Your task to perform on an android device: Go to internet settings Image 0: 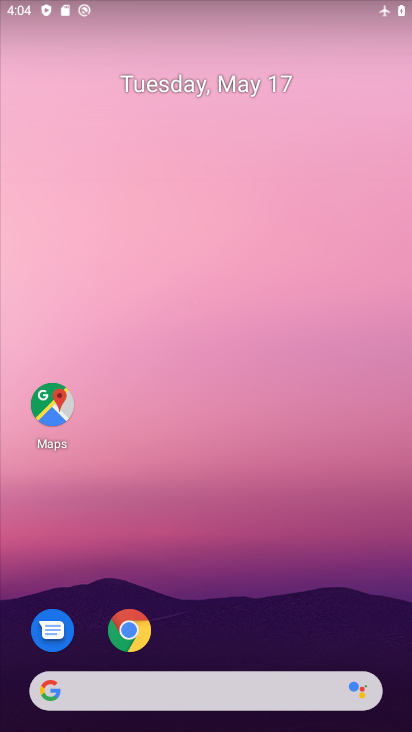
Step 0: drag from (218, 721) to (223, 260)
Your task to perform on an android device: Go to internet settings Image 1: 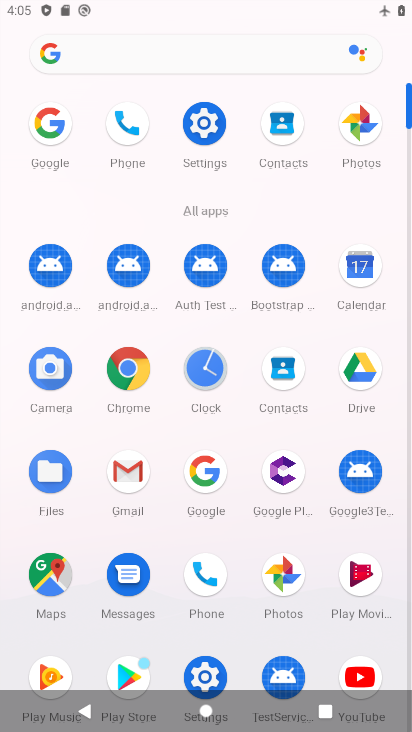
Step 1: click (206, 121)
Your task to perform on an android device: Go to internet settings Image 2: 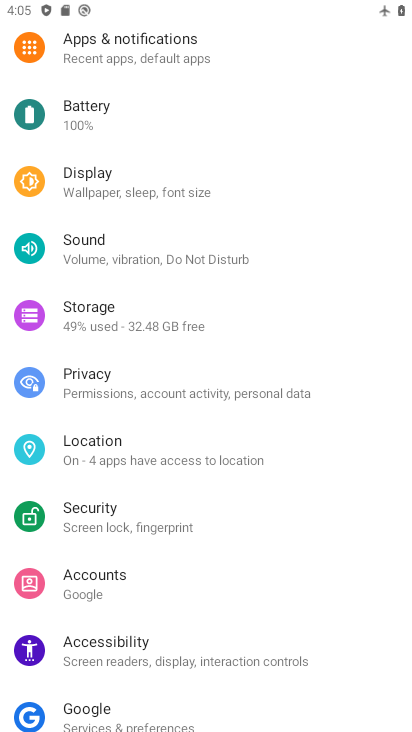
Step 2: drag from (147, 147) to (146, 386)
Your task to perform on an android device: Go to internet settings Image 3: 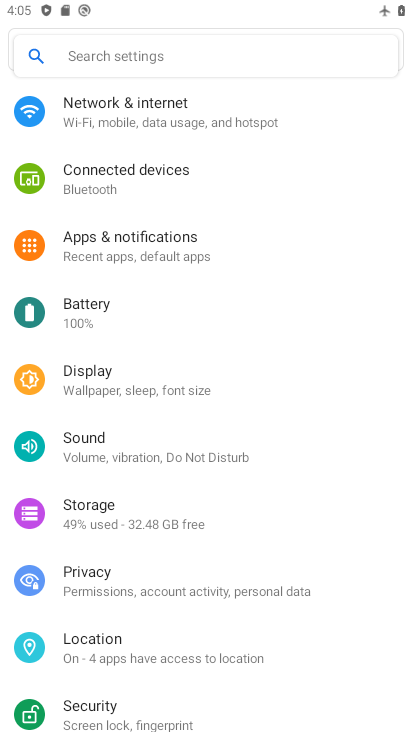
Step 3: click (115, 122)
Your task to perform on an android device: Go to internet settings Image 4: 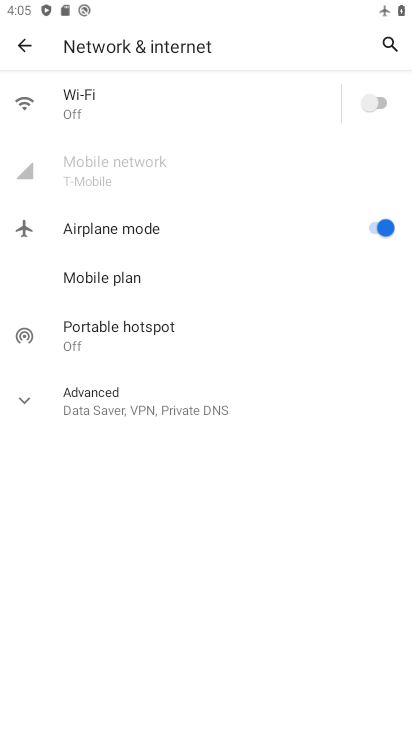
Step 4: task complete